Your task to perform on an android device: change the clock display to analog Image 0: 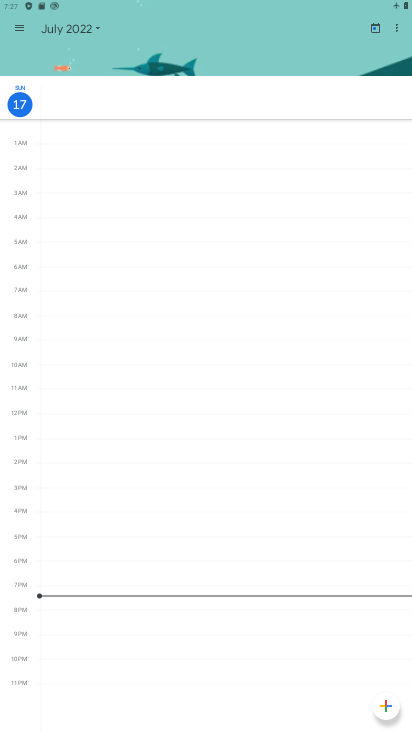
Step 0: press home button
Your task to perform on an android device: change the clock display to analog Image 1: 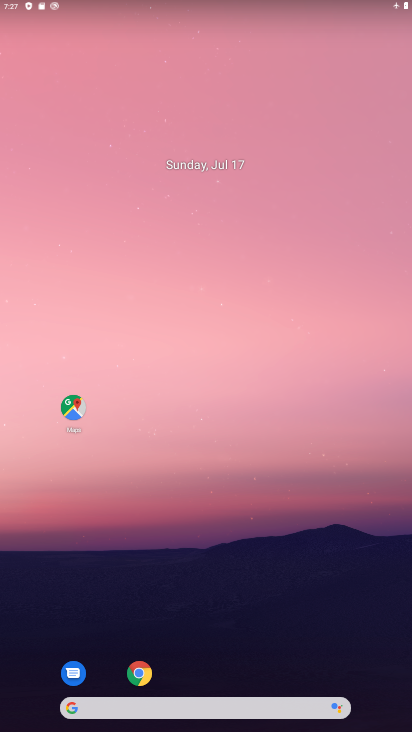
Step 1: drag from (70, 355) to (20, 68)
Your task to perform on an android device: change the clock display to analog Image 2: 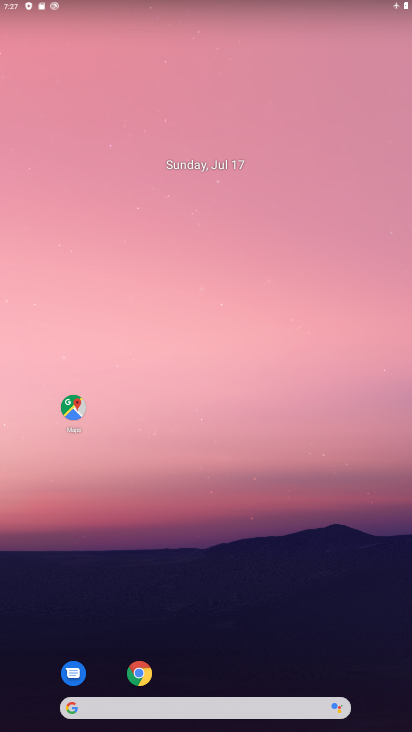
Step 2: drag from (236, 595) to (240, 2)
Your task to perform on an android device: change the clock display to analog Image 3: 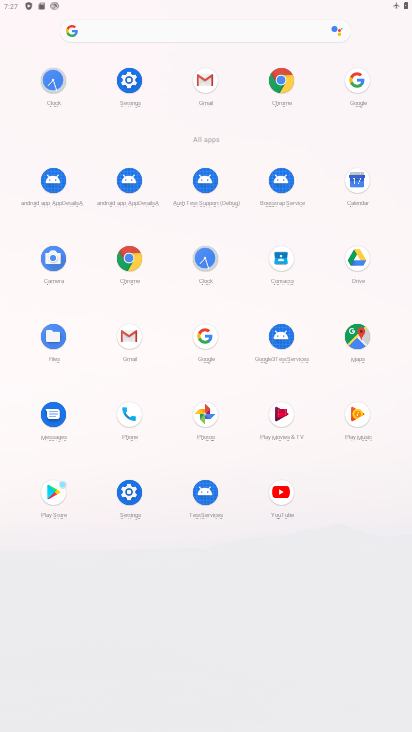
Step 3: click (47, 86)
Your task to perform on an android device: change the clock display to analog Image 4: 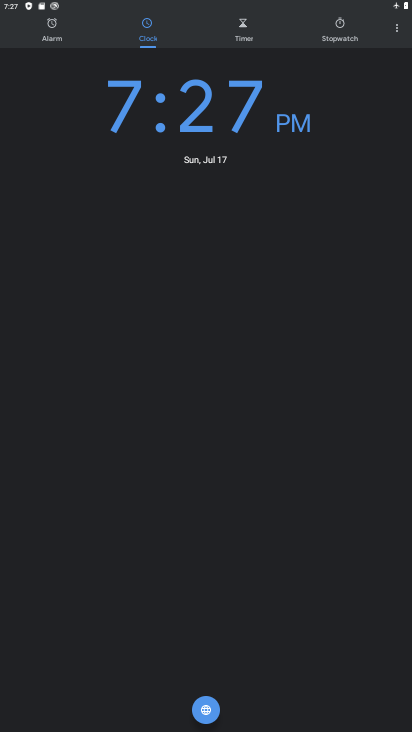
Step 4: click (402, 24)
Your task to perform on an android device: change the clock display to analog Image 5: 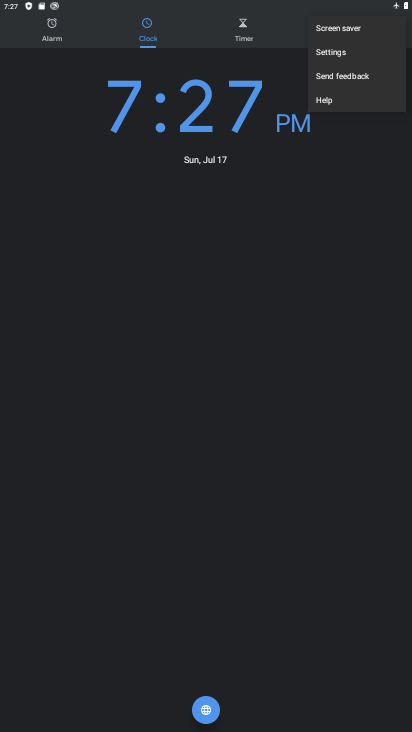
Step 5: click (343, 55)
Your task to perform on an android device: change the clock display to analog Image 6: 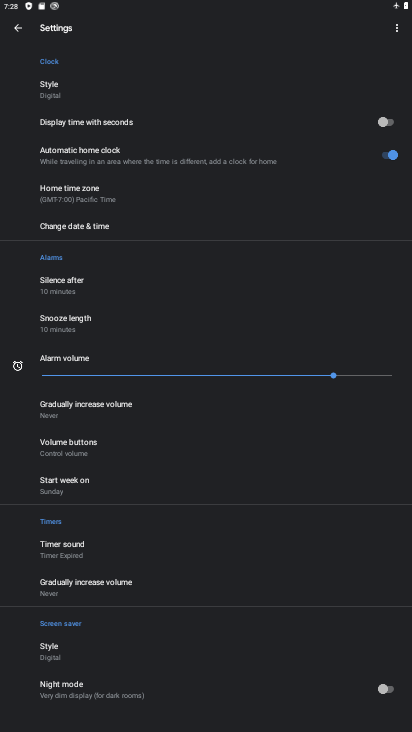
Step 6: click (60, 88)
Your task to perform on an android device: change the clock display to analog Image 7: 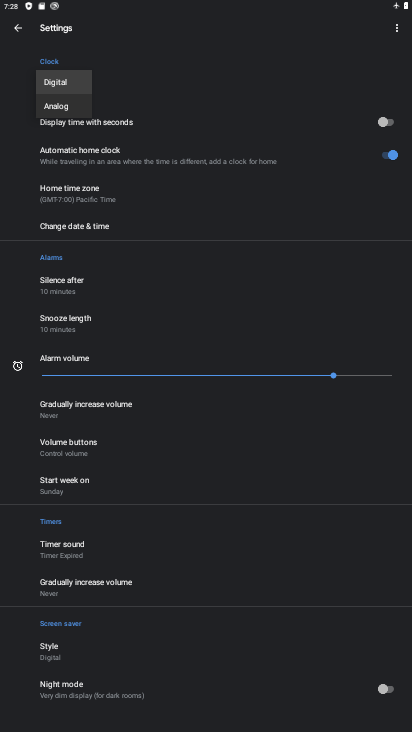
Step 7: click (63, 109)
Your task to perform on an android device: change the clock display to analog Image 8: 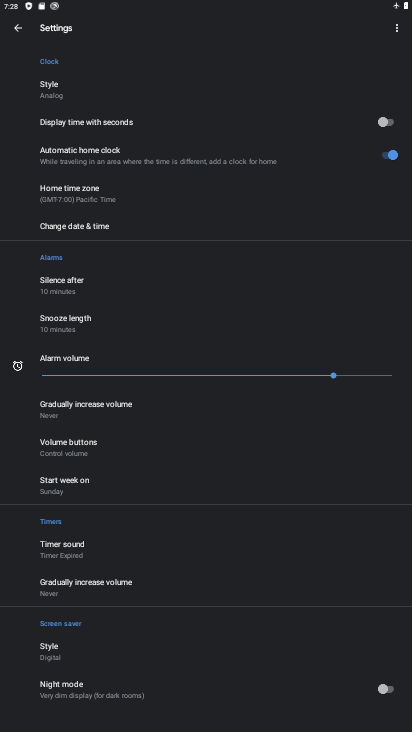
Step 8: task complete